Your task to perform on an android device: Open my contact list Image 0: 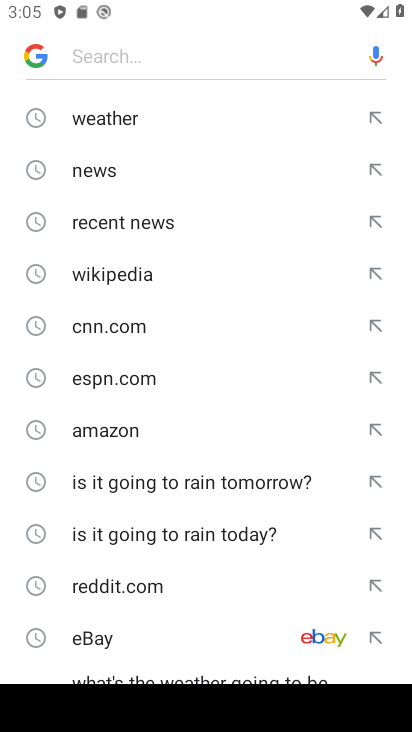
Step 0: drag from (259, 635) to (239, 451)
Your task to perform on an android device: Open my contact list Image 1: 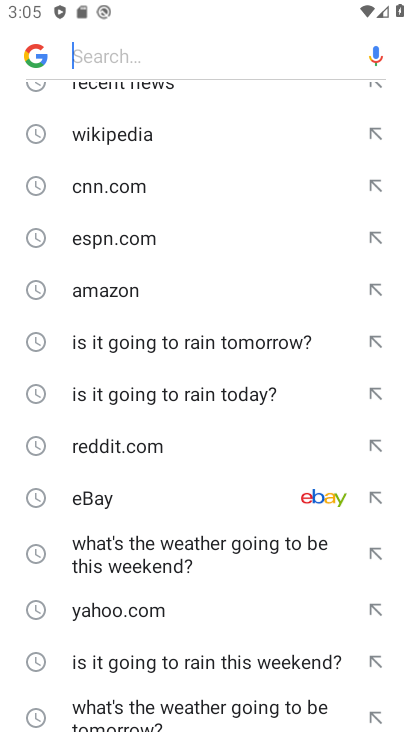
Step 1: press back button
Your task to perform on an android device: Open my contact list Image 2: 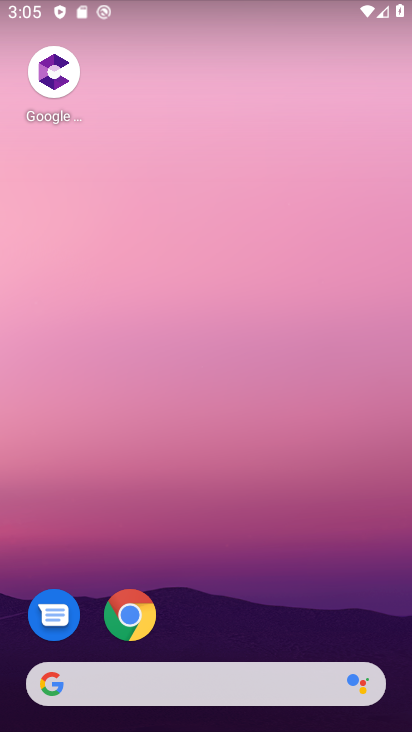
Step 2: drag from (245, 636) to (263, 7)
Your task to perform on an android device: Open my contact list Image 3: 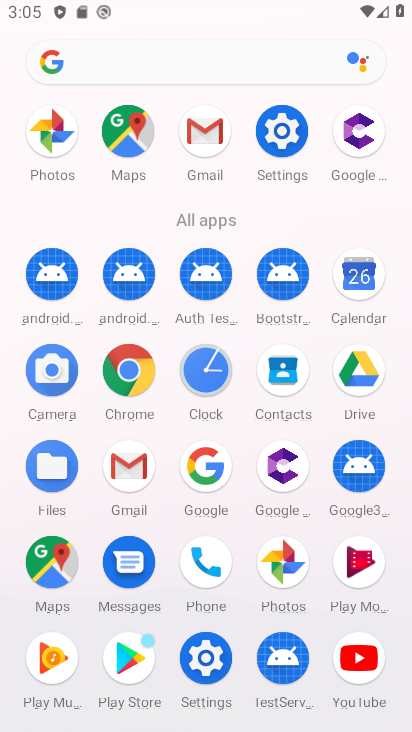
Step 3: click (292, 356)
Your task to perform on an android device: Open my contact list Image 4: 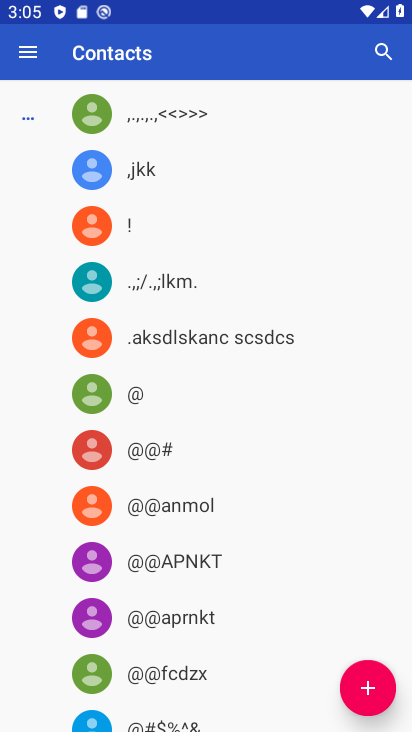
Step 4: task complete